Your task to perform on an android device: turn smart compose on in the gmail app Image 0: 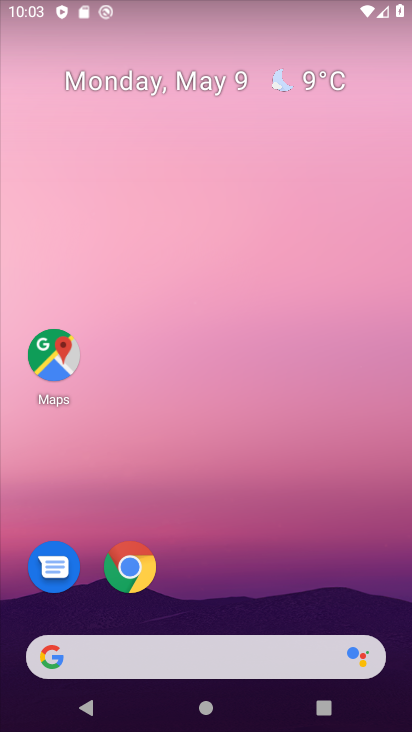
Step 0: press home button
Your task to perform on an android device: turn smart compose on in the gmail app Image 1: 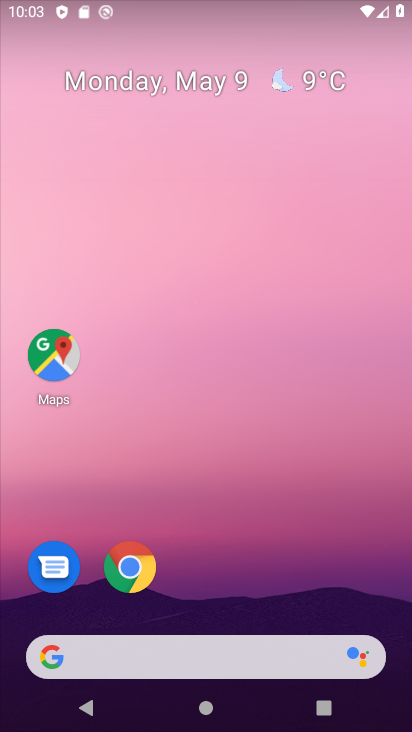
Step 1: drag from (246, 613) to (233, 74)
Your task to perform on an android device: turn smart compose on in the gmail app Image 2: 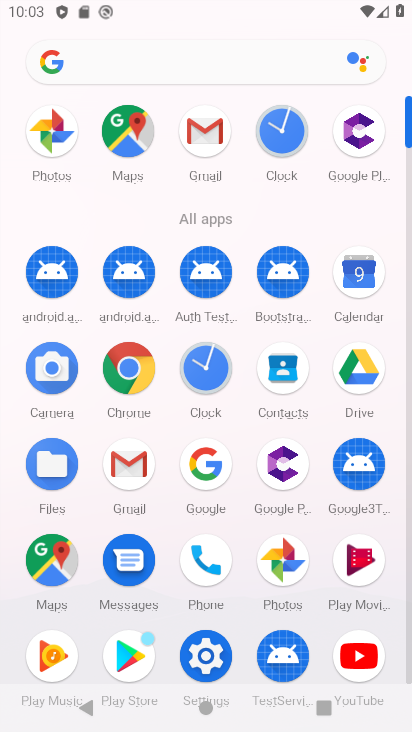
Step 2: click (198, 120)
Your task to perform on an android device: turn smart compose on in the gmail app Image 3: 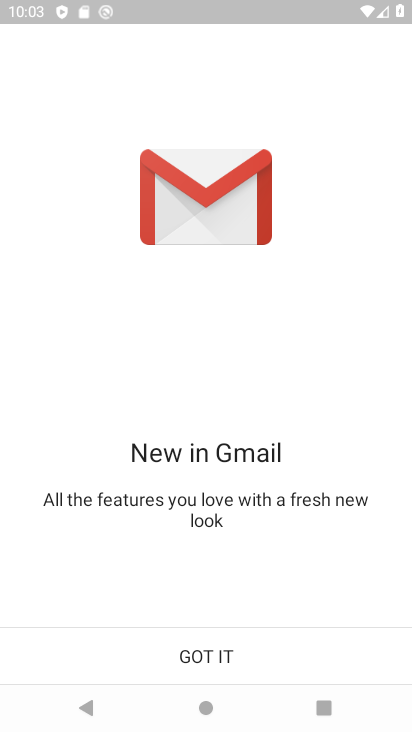
Step 3: click (211, 662)
Your task to perform on an android device: turn smart compose on in the gmail app Image 4: 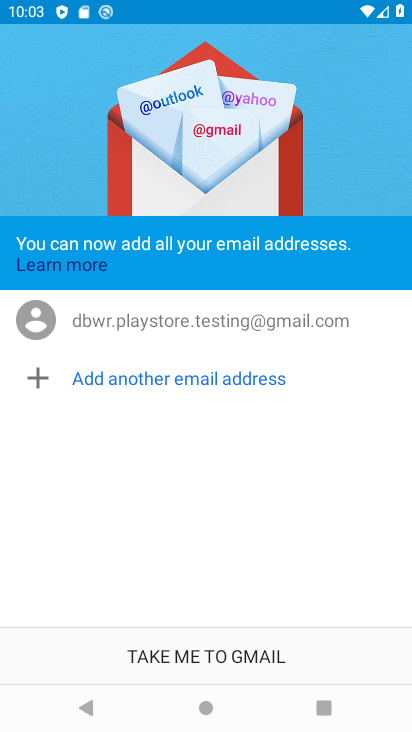
Step 4: click (209, 659)
Your task to perform on an android device: turn smart compose on in the gmail app Image 5: 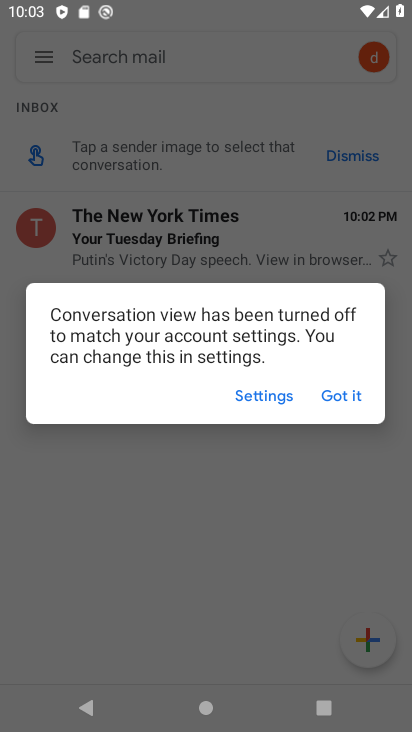
Step 5: click (338, 391)
Your task to perform on an android device: turn smart compose on in the gmail app Image 6: 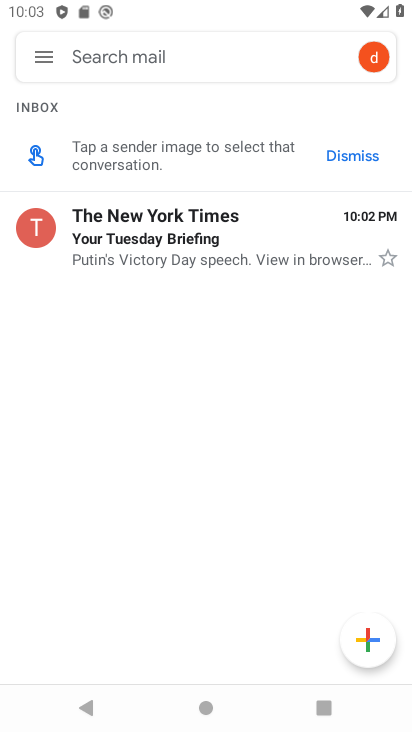
Step 6: click (37, 53)
Your task to perform on an android device: turn smart compose on in the gmail app Image 7: 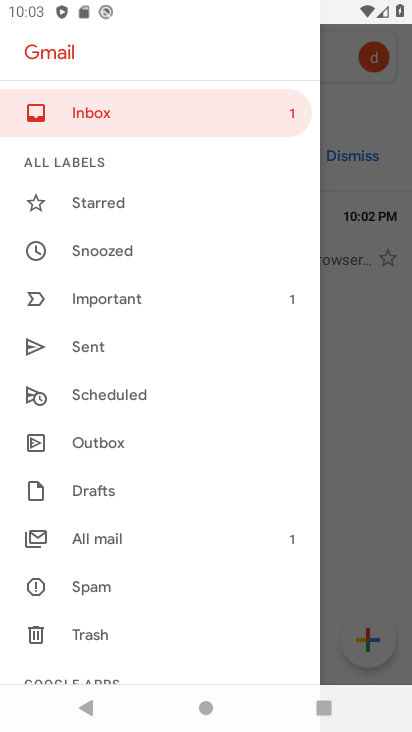
Step 7: drag from (131, 621) to (140, 138)
Your task to perform on an android device: turn smart compose on in the gmail app Image 8: 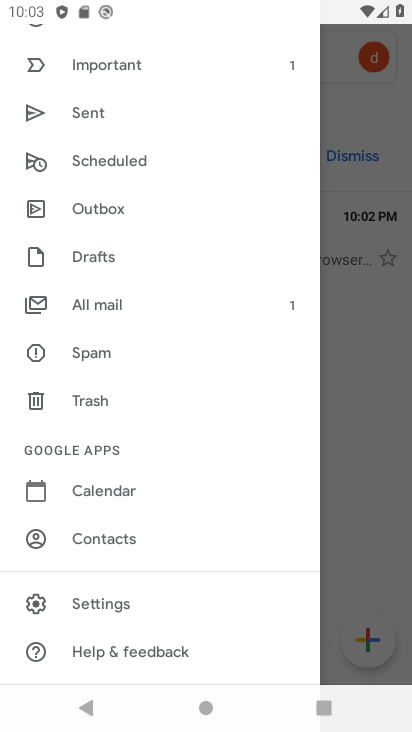
Step 8: click (140, 606)
Your task to perform on an android device: turn smart compose on in the gmail app Image 9: 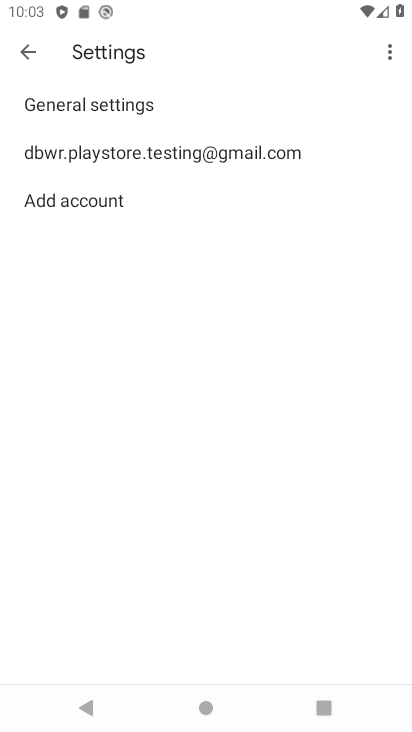
Step 9: click (308, 153)
Your task to perform on an android device: turn smart compose on in the gmail app Image 10: 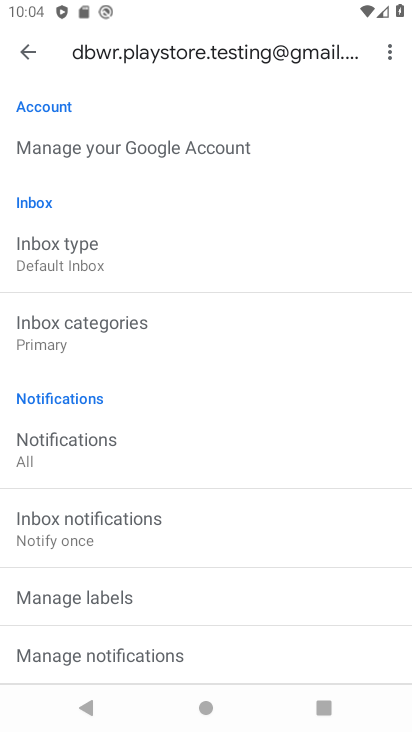
Step 10: task complete